Your task to perform on an android device: clear history in the chrome app Image 0: 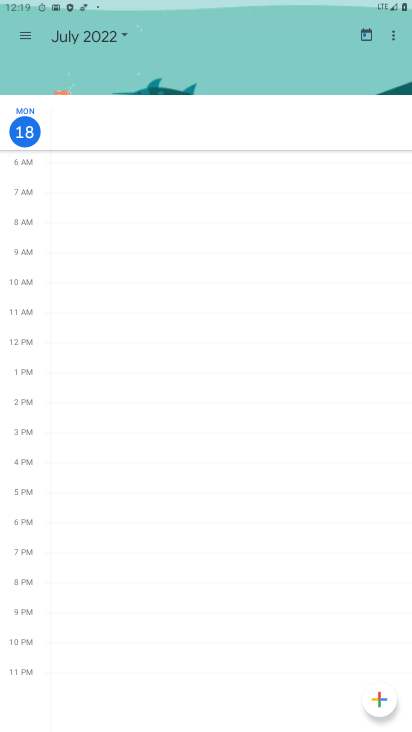
Step 0: press home button
Your task to perform on an android device: clear history in the chrome app Image 1: 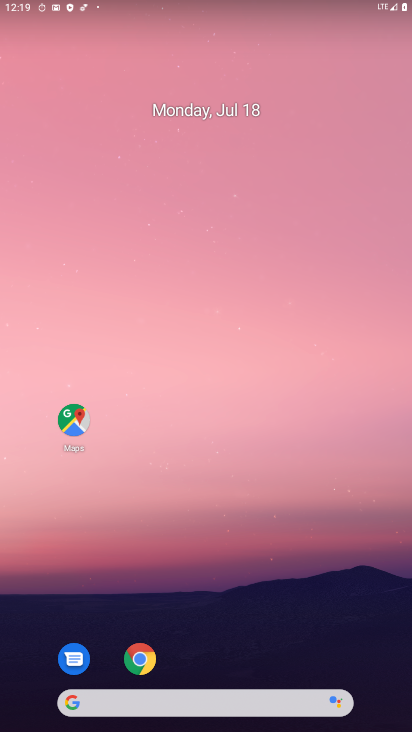
Step 1: click (137, 660)
Your task to perform on an android device: clear history in the chrome app Image 2: 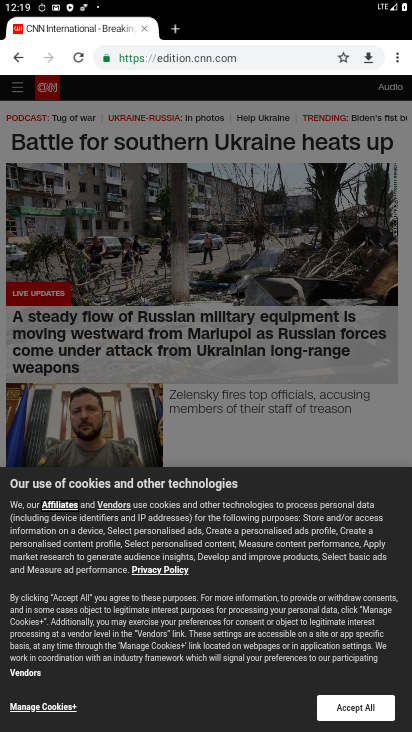
Step 2: click (398, 54)
Your task to perform on an android device: clear history in the chrome app Image 3: 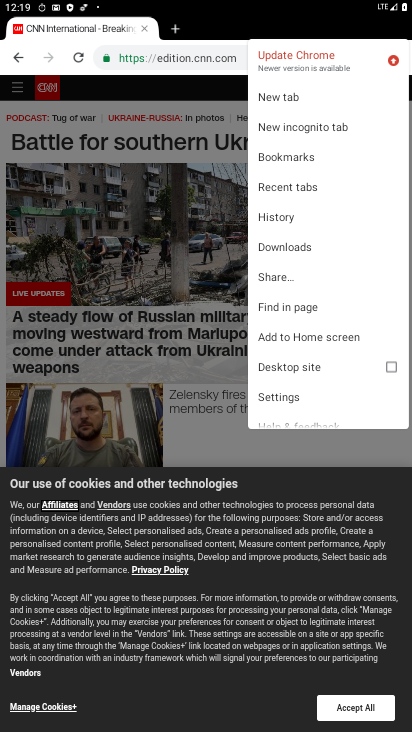
Step 3: click (276, 217)
Your task to perform on an android device: clear history in the chrome app Image 4: 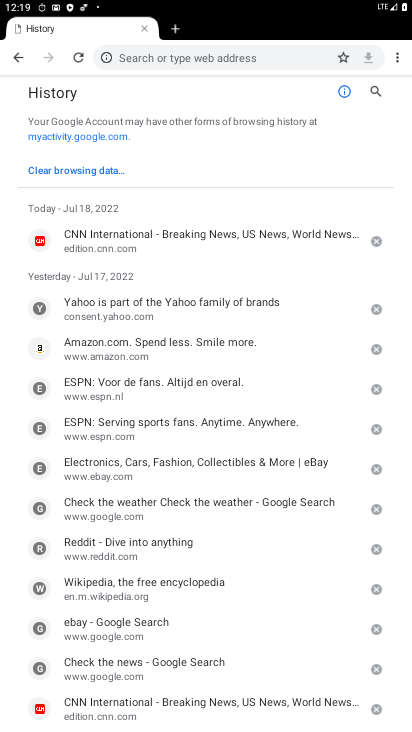
Step 4: click (81, 168)
Your task to perform on an android device: clear history in the chrome app Image 5: 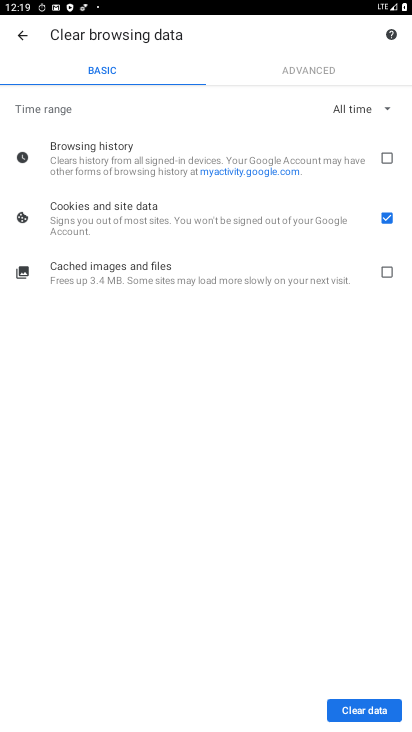
Step 5: click (380, 153)
Your task to perform on an android device: clear history in the chrome app Image 6: 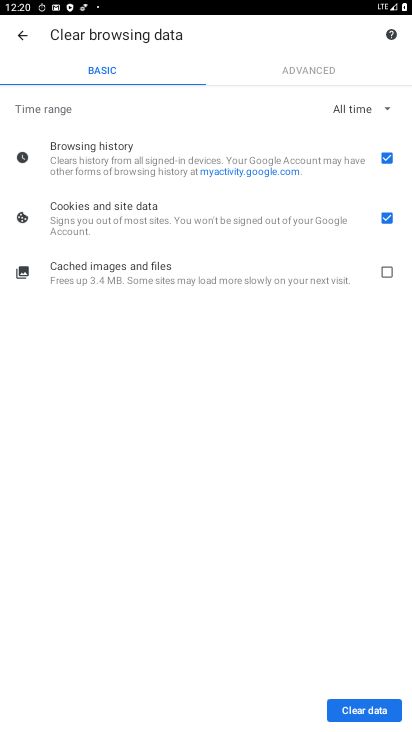
Step 6: click (388, 275)
Your task to perform on an android device: clear history in the chrome app Image 7: 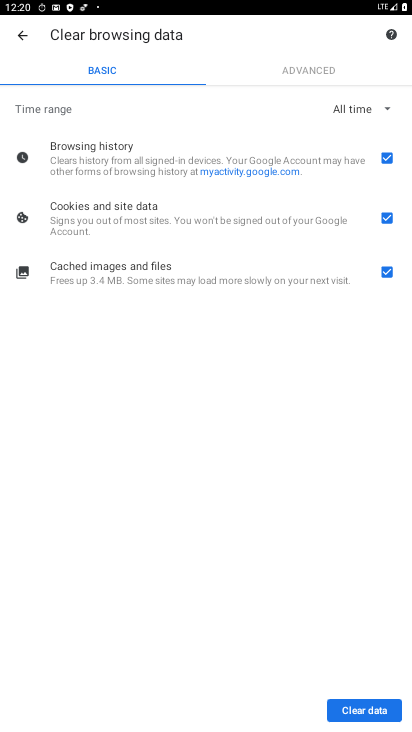
Step 7: click (374, 705)
Your task to perform on an android device: clear history in the chrome app Image 8: 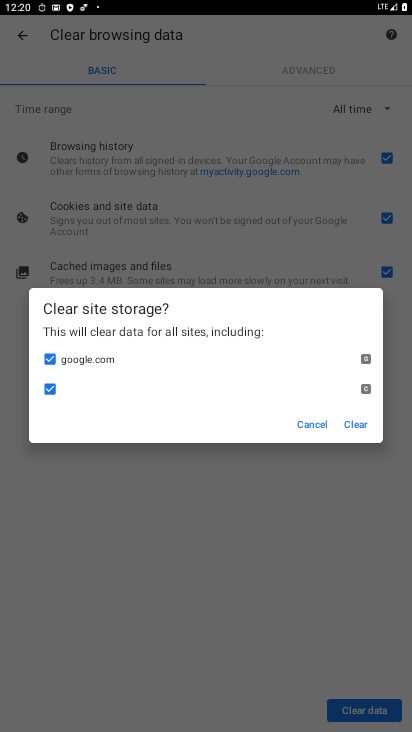
Step 8: click (360, 422)
Your task to perform on an android device: clear history in the chrome app Image 9: 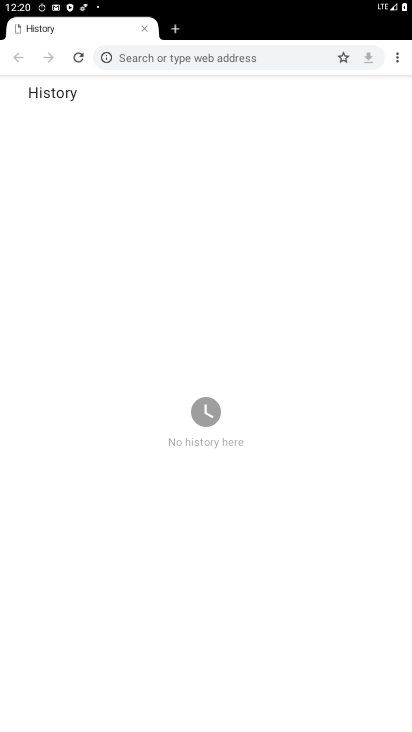
Step 9: task complete